Your task to perform on an android device: What is the news today? Image 0: 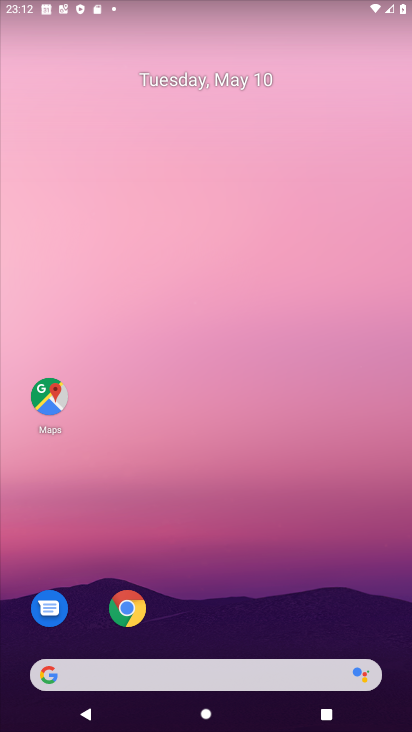
Step 0: drag from (265, 602) to (230, 341)
Your task to perform on an android device: What is the news today? Image 1: 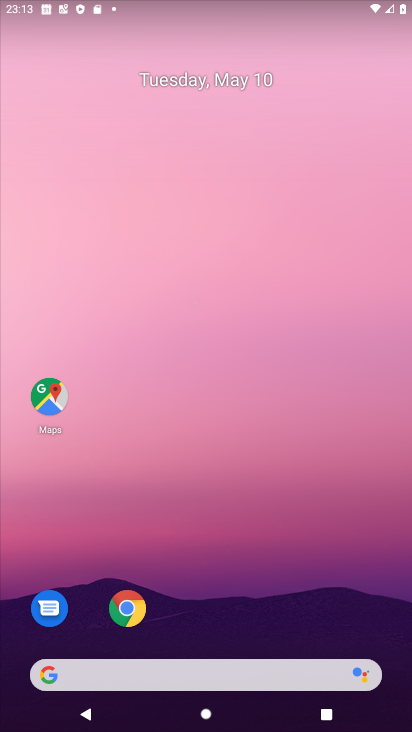
Step 1: drag from (224, 552) to (218, 375)
Your task to perform on an android device: What is the news today? Image 2: 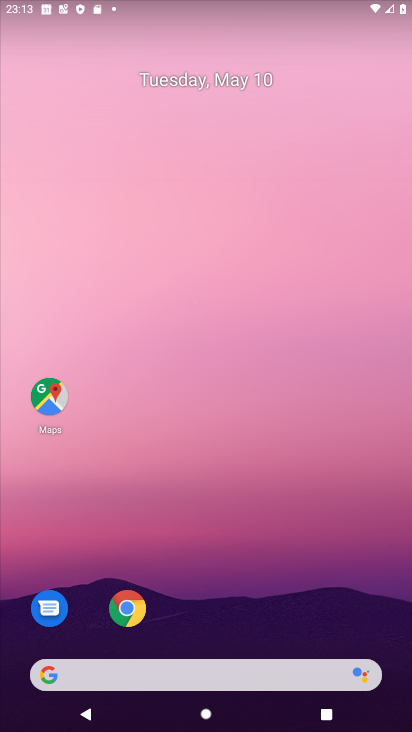
Step 2: drag from (229, 627) to (259, 228)
Your task to perform on an android device: What is the news today? Image 3: 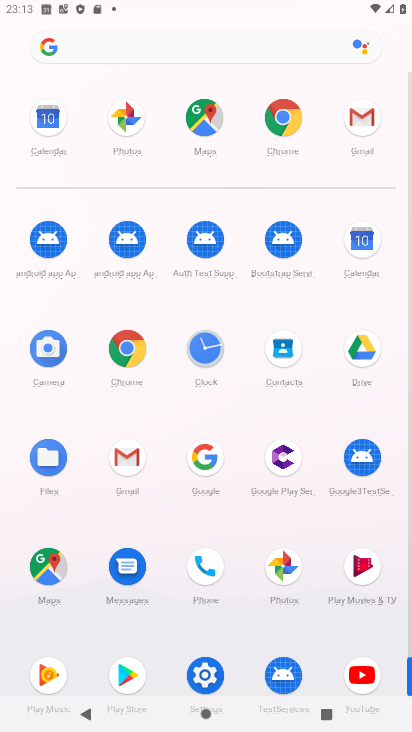
Step 3: click (121, 344)
Your task to perform on an android device: What is the news today? Image 4: 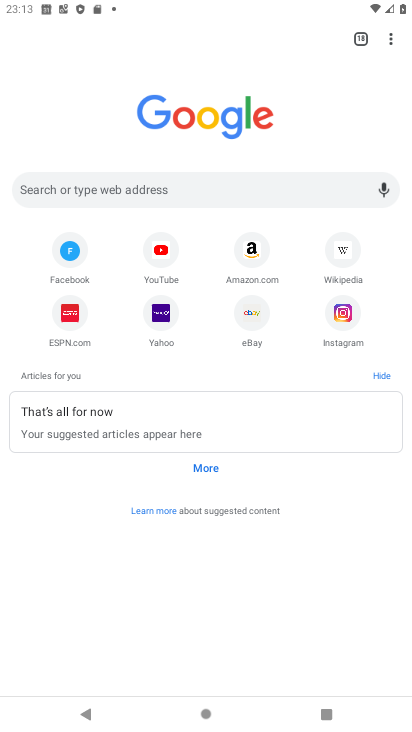
Step 4: click (211, 188)
Your task to perform on an android device: What is the news today? Image 5: 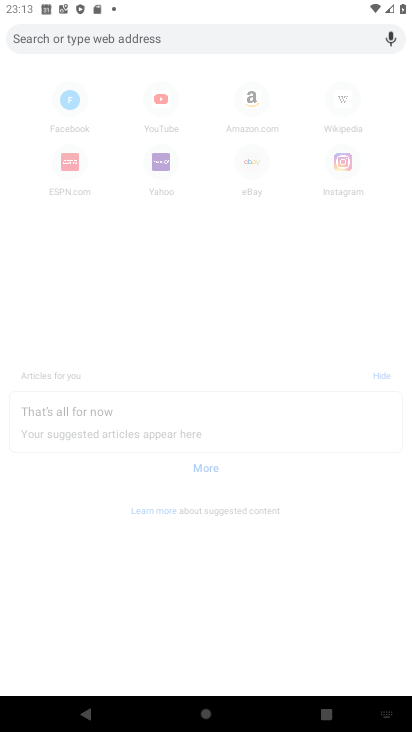
Step 5: type "What is the news today?"
Your task to perform on an android device: What is the news today? Image 6: 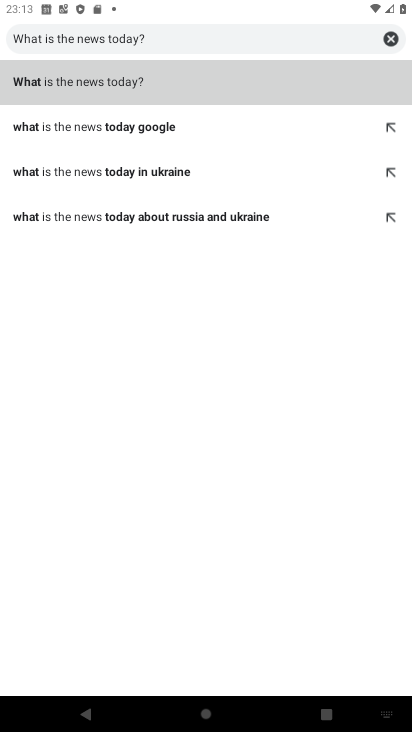
Step 6: click (180, 77)
Your task to perform on an android device: What is the news today? Image 7: 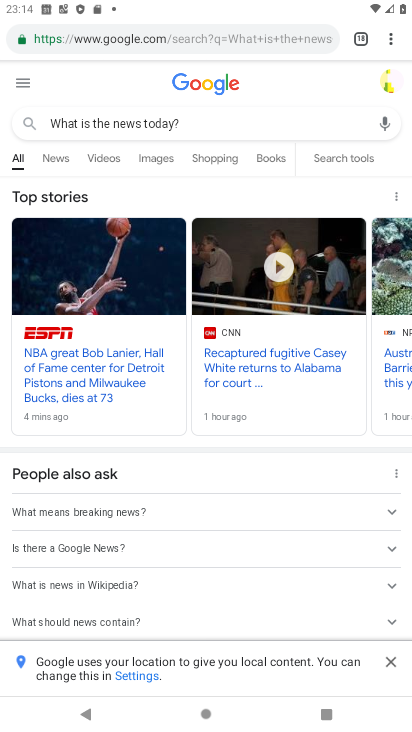
Step 7: task complete